Your task to perform on an android device: toggle pop-ups in chrome Image 0: 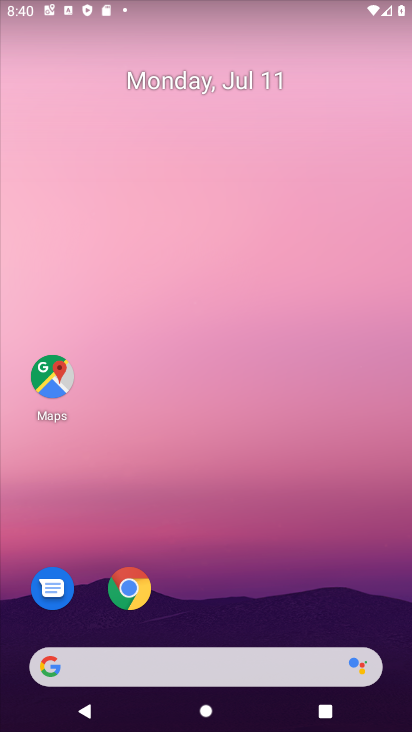
Step 0: drag from (386, 653) to (387, 300)
Your task to perform on an android device: toggle pop-ups in chrome Image 1: 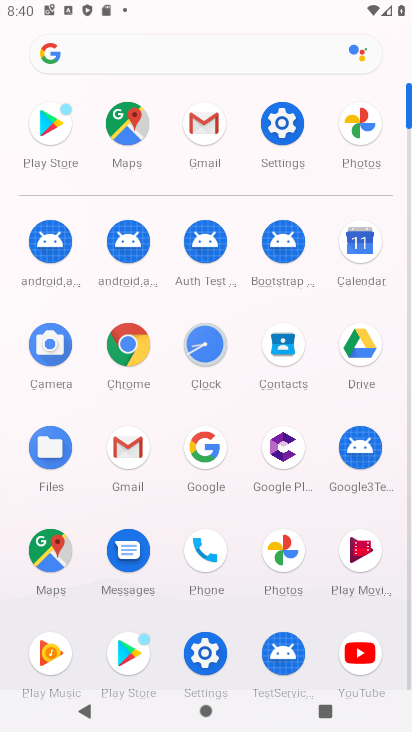
Step 1: click (124, 330)
Your task to perform on an android device: toggle pop-ups in chrome Image 2: 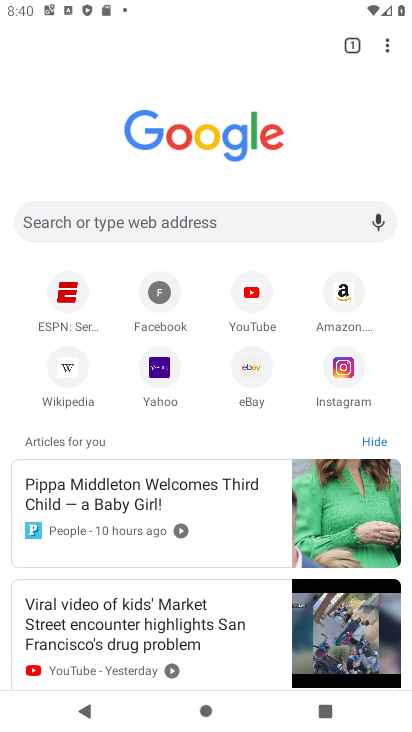
Step 2: click (390, 45)
Your task to perform on an android device: toggle pop-ups in chrome Image 3: 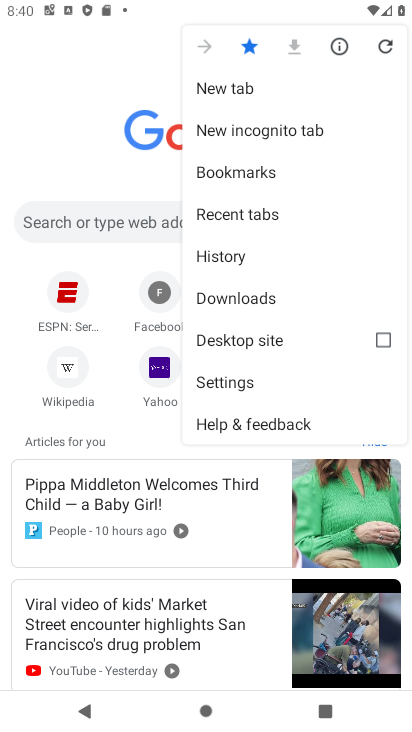
Step 3: click (228, 373)
Your task to perform on an android device: toggle pop-ups in chrome Image 4: 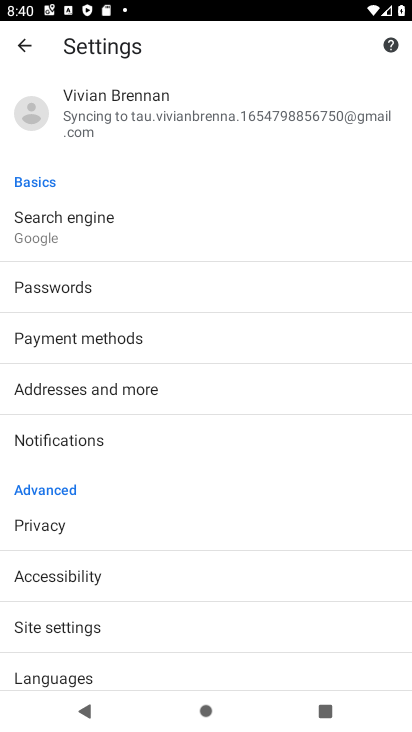
Step 4: click (142, 637)
Your task to perform on an android device: toggle pop-ups in chrome Image 5: 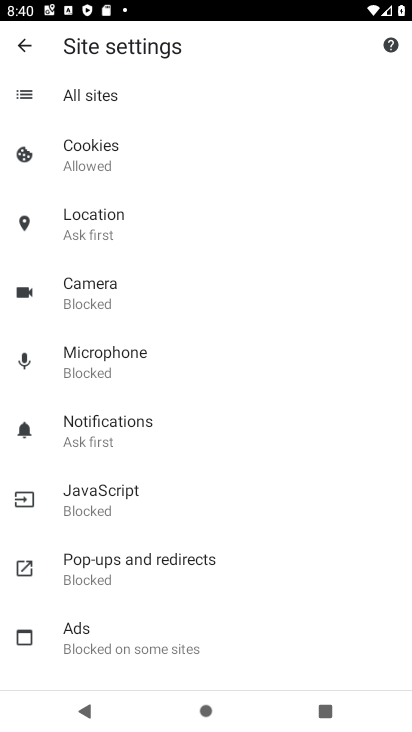
Step 5: click (151, 563)
Your task to perform on an android device: toggle pop-ups in chrome Image 6: 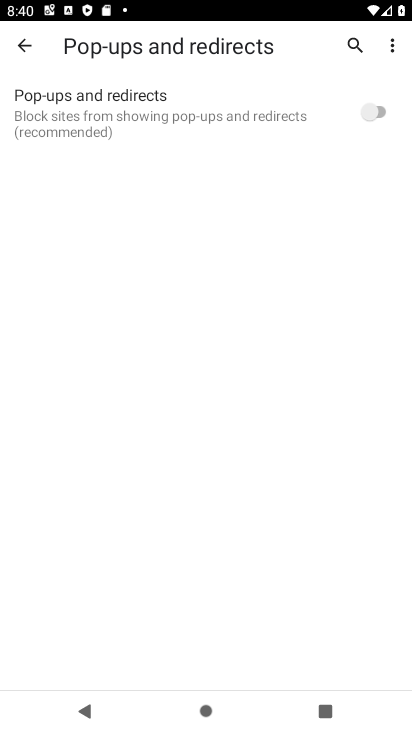
Step 6: click (376, 111)
Your task to perform on an android device: toggle pop-ups in chrome Image 7: 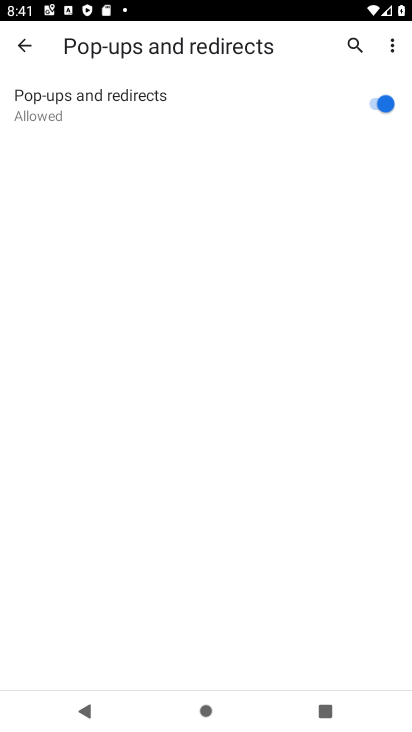
Step 7: task complete